Your task to perform on an android device: turn off notifications settings in the gmail app Image 0: 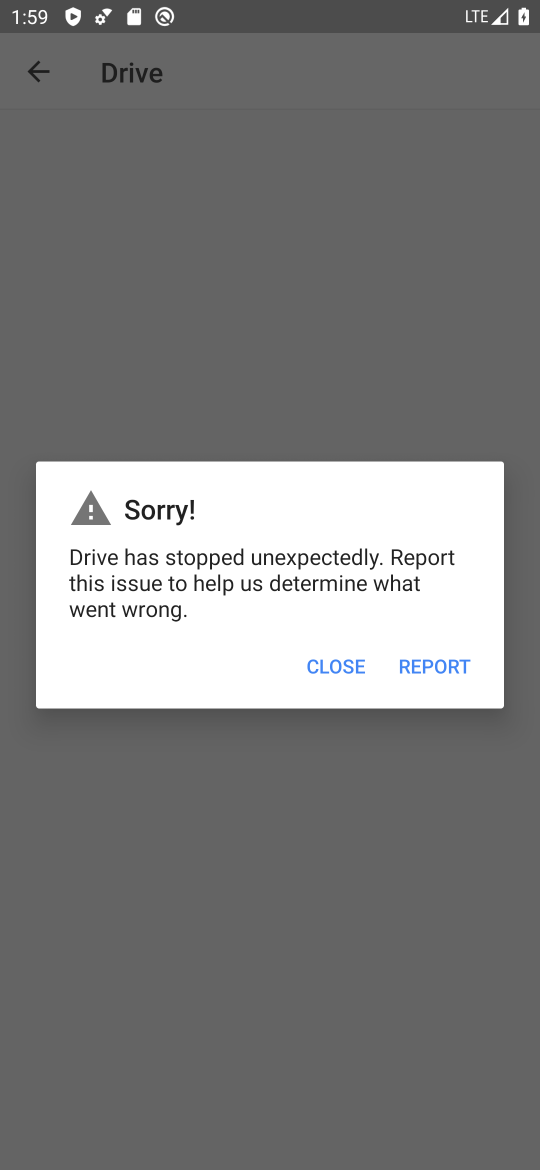
Step 0: press home button
Your task to perform on an android device: turn off notifications settings in the gmail app Image 1: 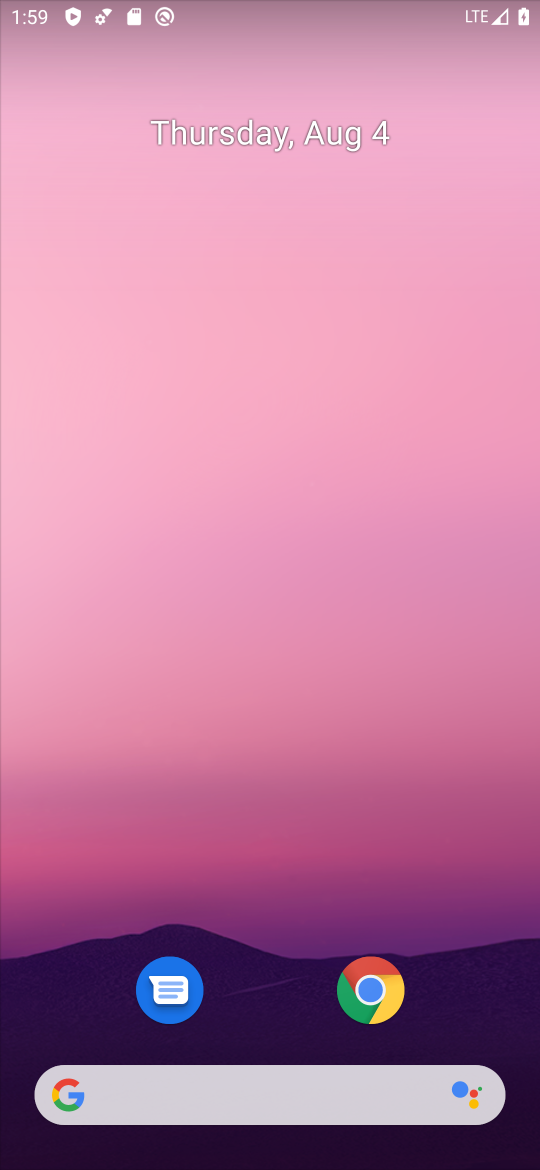
Step 1: drag from (295, 1056) to (237, 454)
Your task to perform on an android device: turn off notifications settings in the gmail app Image 2: 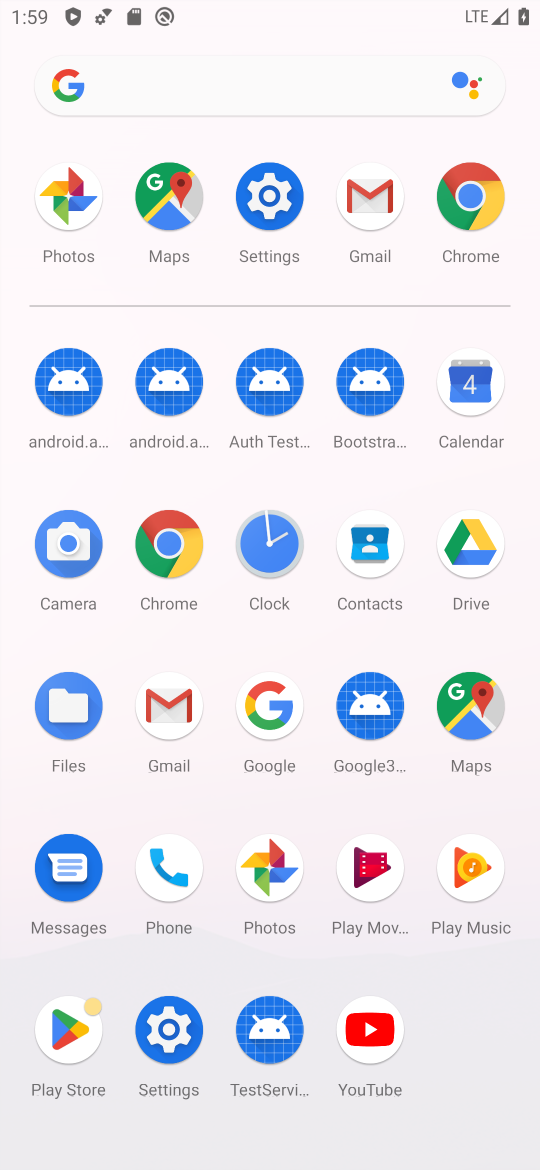
Step 2: click (251, 237)
Your task to perform on an android device: turn off notifications settings in the gmail app Image 3: 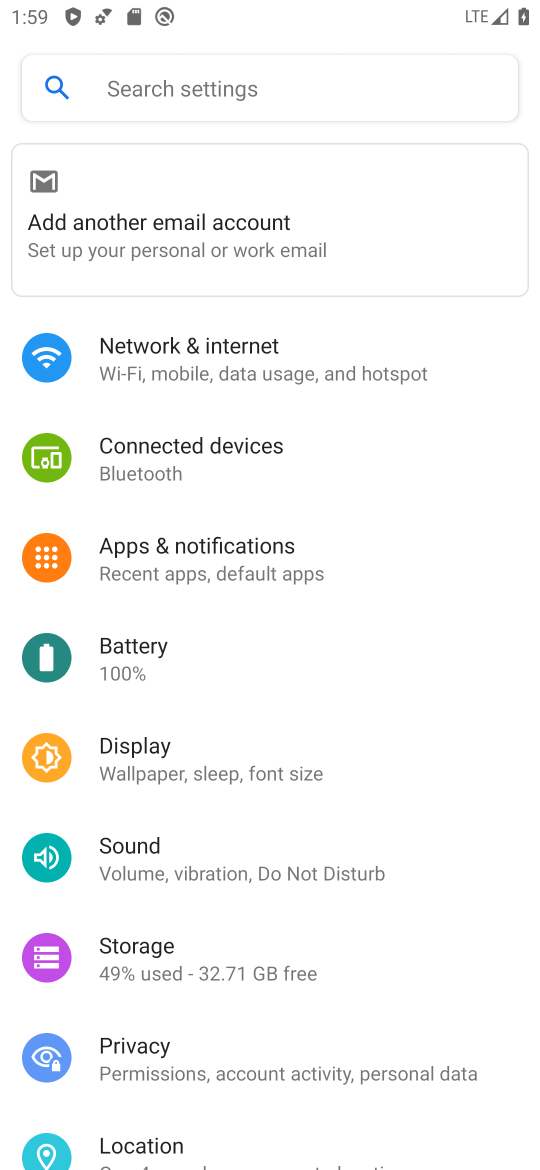
Step 3: click (243, 536)
Your task to perform on an android device: turn off notifications settings in the gmail app Image 4: 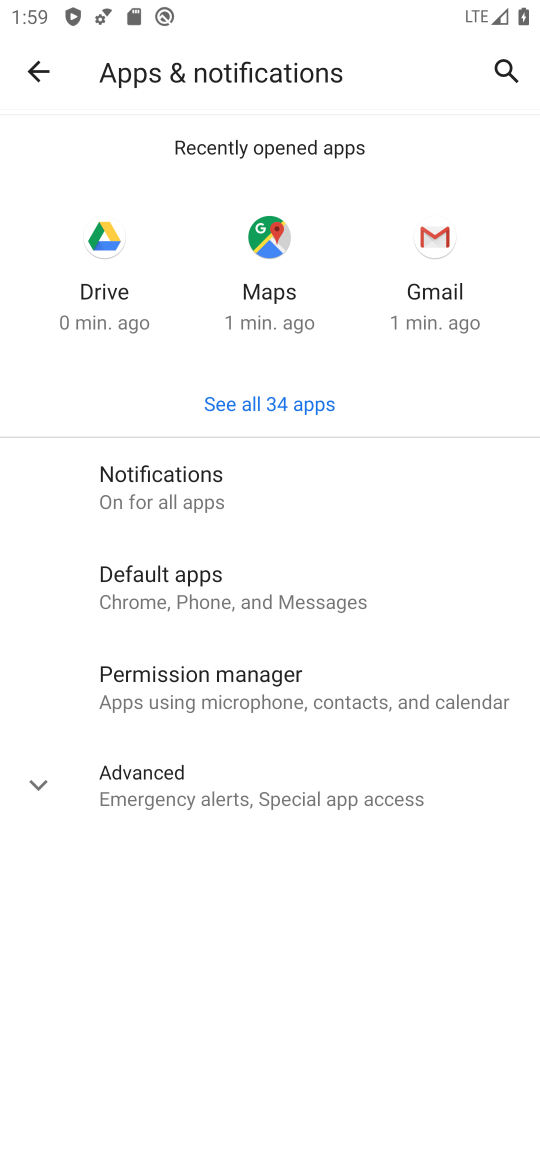
Step 4: task complete